Your task to perform on an android device: Open Maps and search for coffee Image 0: 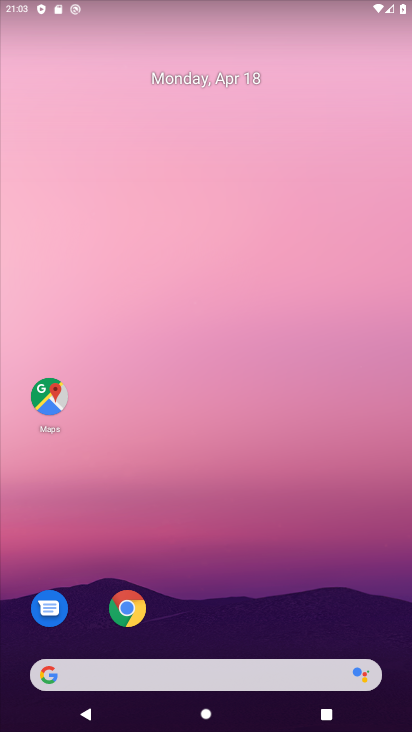
Step 0: drag from (248, 581) to (267, 134)
Your task to perform on an android device: Open Maps and search for coffee Image 1: 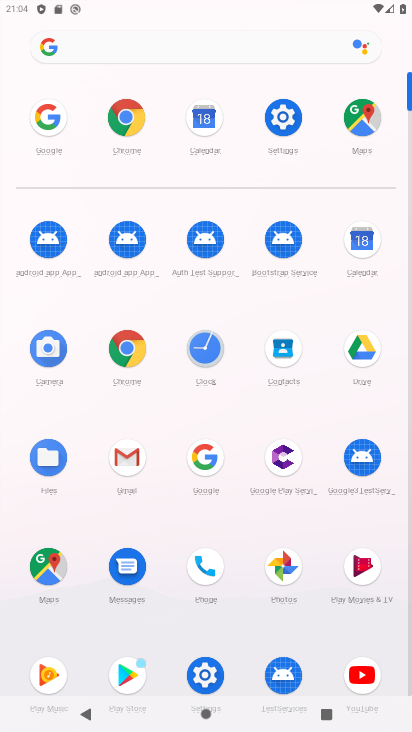
Step 1: click (361, 117)
Your task to perform on an android device: Open Maps and search for coffee Image 2: 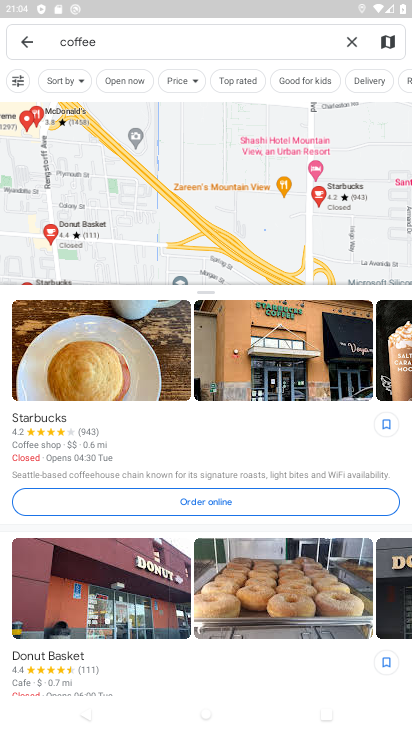
Step 2: task complete